Your task to perform on an android device: Go to settings Image 0: 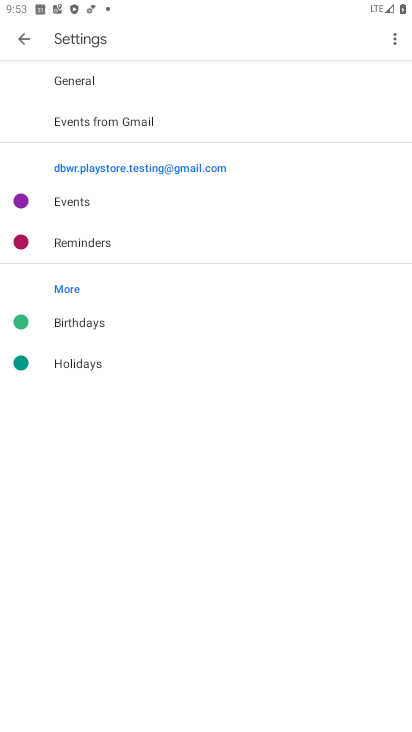
Step 0: press home button
Your task to perform on an android device: Go to settings Image 1: 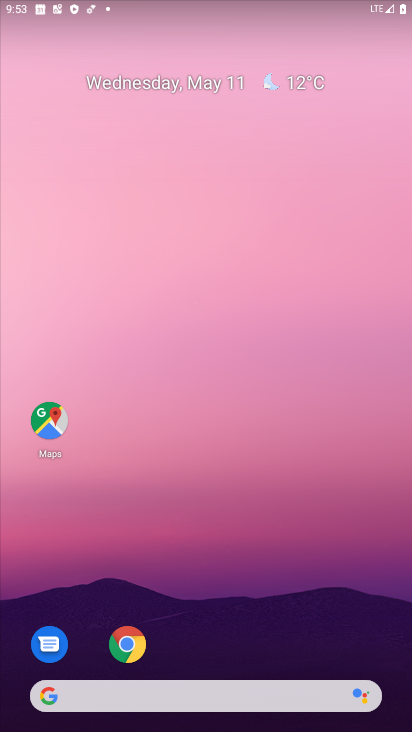
Step 1: drag from (290, 632) to (247, 157)
Your task to perform on an android device: Go to settings Image 2: 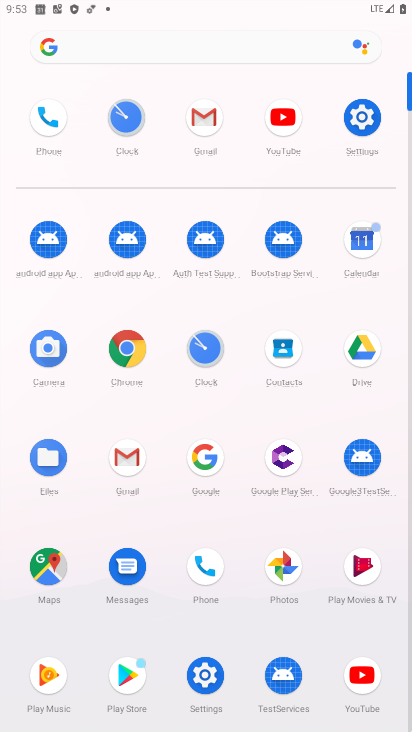
Step 2: click (376, 129)
Your task to perform on an android device: Go to settings Image 3: 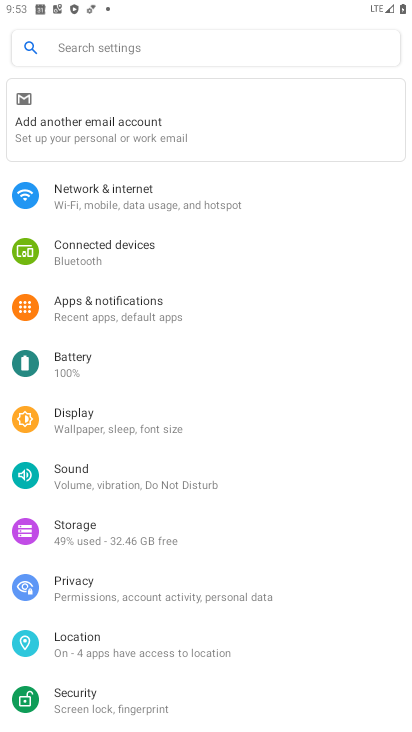
Step 3: task complete